Your task to perform on an android device: move a message to another label in the gmail app Image 0: 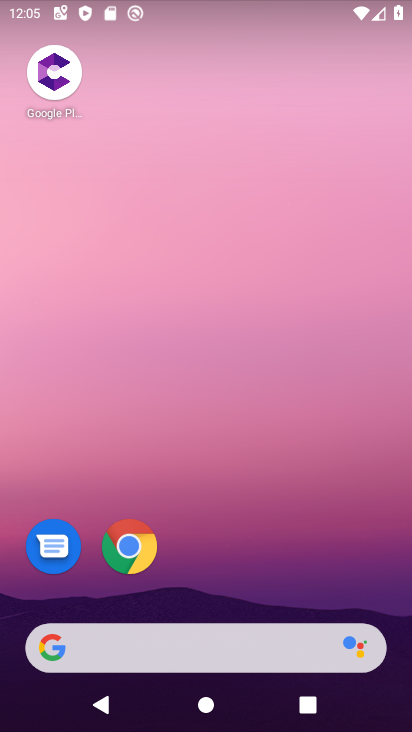
Step 0: drag from (264, 476) to (194, 8)
Your task to perform on an android device: move a message to another label in the gmail app Image 1: 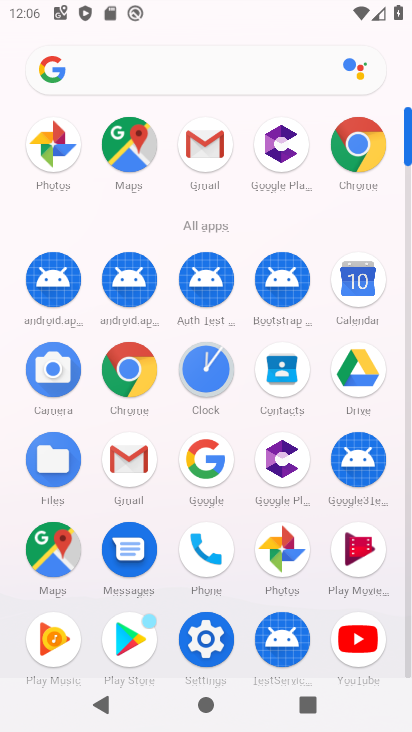
Step 1: click (118, 447)
Your task to perform on an android device: move a message to another label in the gmail app Image 2: 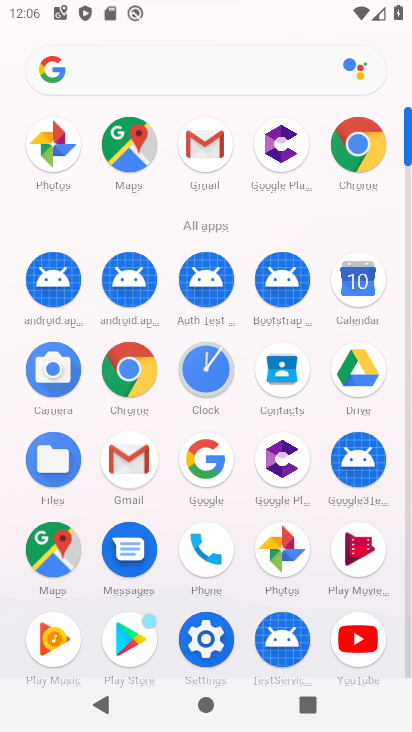
Step 2: click (126, 447)
Your task to perform on an android device: move a message to another label in the gmail app Image 3: 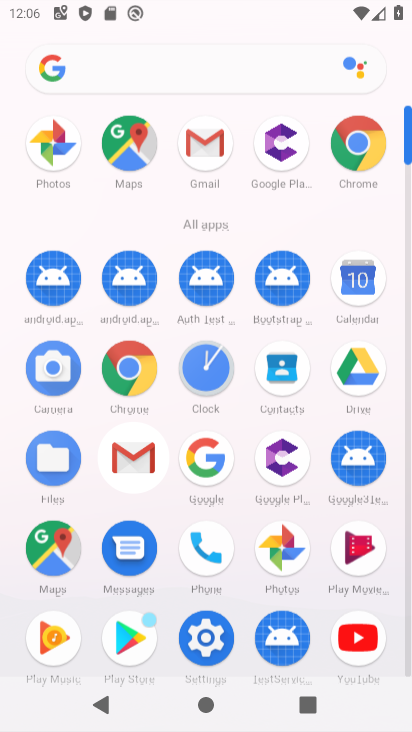
Step 3: click (134, 444)
Your task to perform on an android device: move a message to another label in the gmail app Image 4: 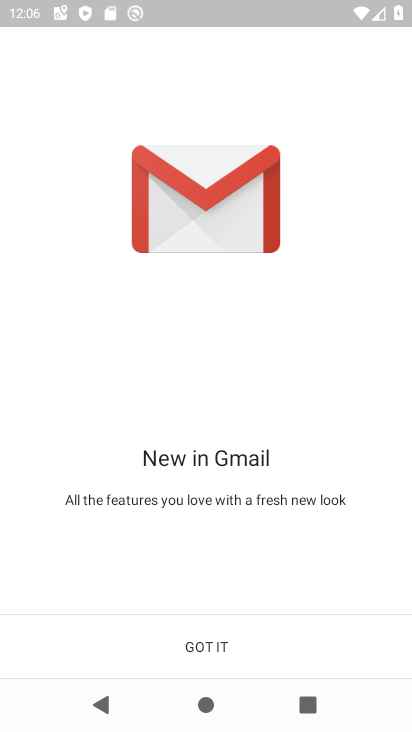
Step 4: click (208, 642)
Your task to perform on an android device: move a message to another label in the gmail app Image 5: 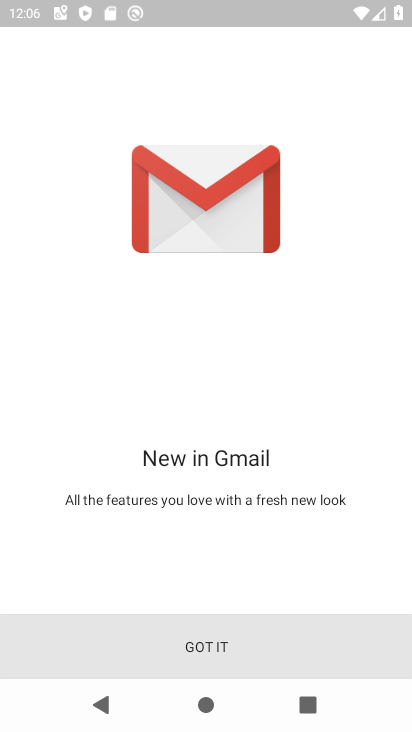
Step 5: click (208, 642)
Your task to perform on an android device: move a message to another label in the gmail app Image 6: 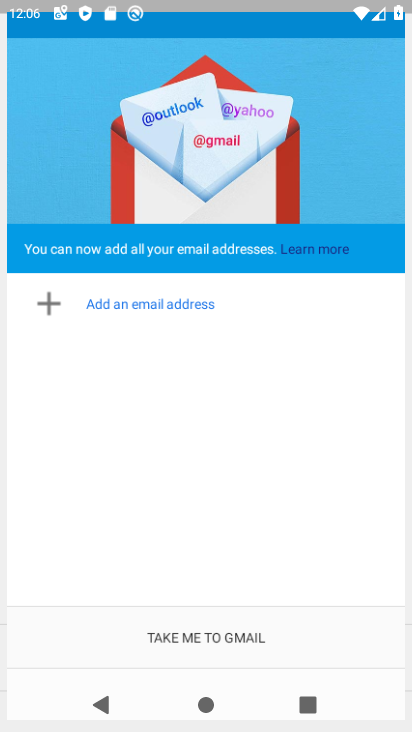
Step 6: click (208, 642)
Your task to perform on an android device: move a message to another label in the gmail app Image 7: 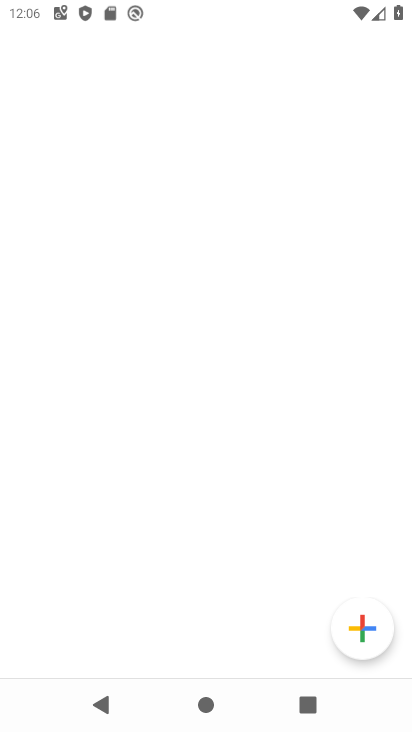
Step 7: click (234, 633)
Your task to perform on an android device: move a message to another label in the gmail app Image 8: 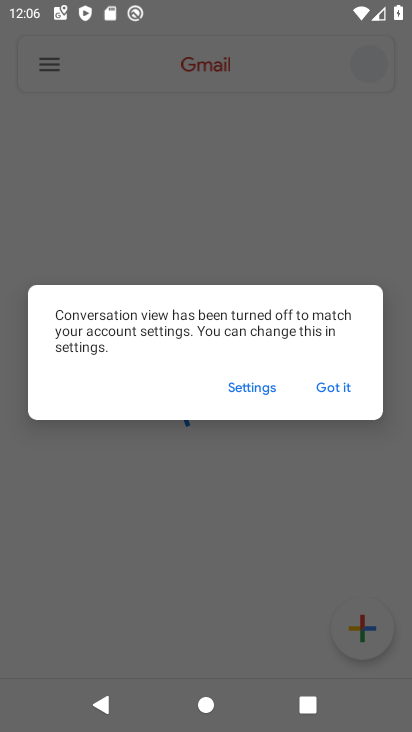
Step 8: click (345, 377)
Your task to perform on an android device: move a message to another label in the gmail app Image 9: 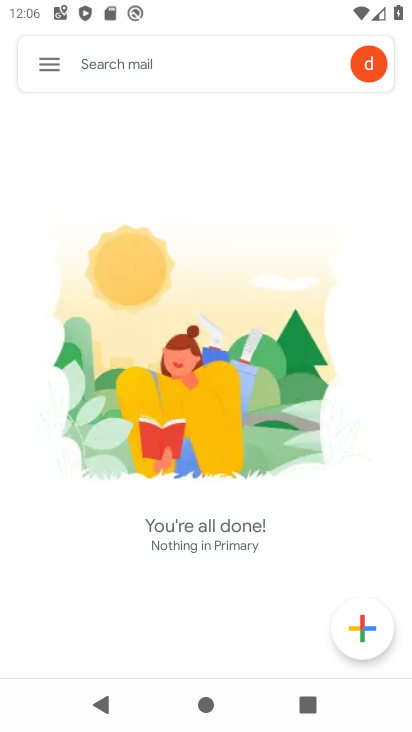
Step 9: drag from (51, 61) to (50, 370)
Your task to perform on an android device: move a message to another label in the gmail app Image 10: 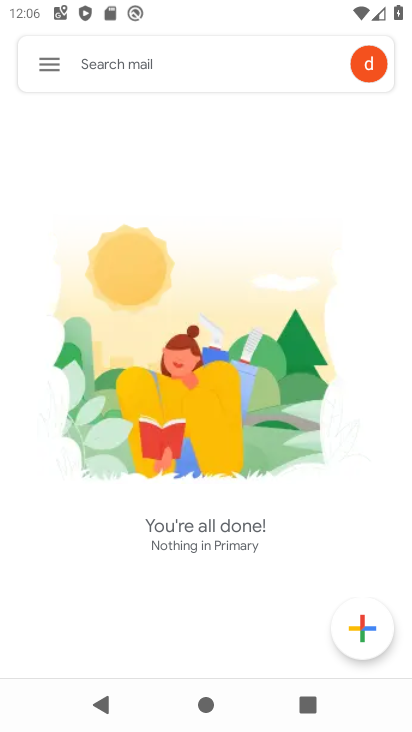
Step 10: click (42, 56)
Your task to perform on an android device: move a message to another label in the gmail app Image 11: 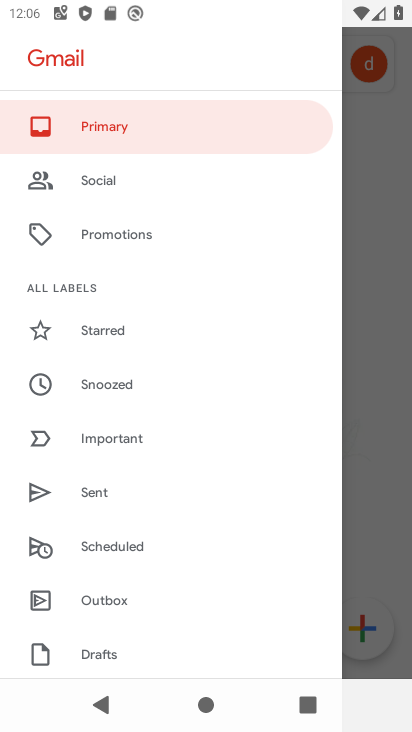
Step 11: drag from (168, 567) to (136, 137)
Your task to perform on an android device: move a message to another label in the gmail app Image 12: 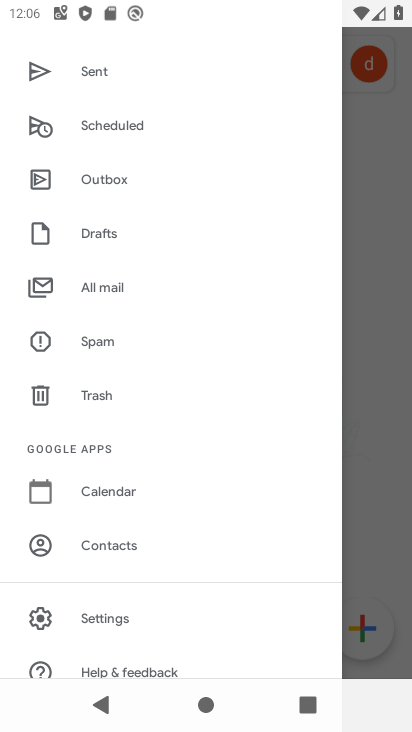
Step 12: click (98, 284)
Your task to perform on an android device: move a message to another label in the gmail app Image 13: 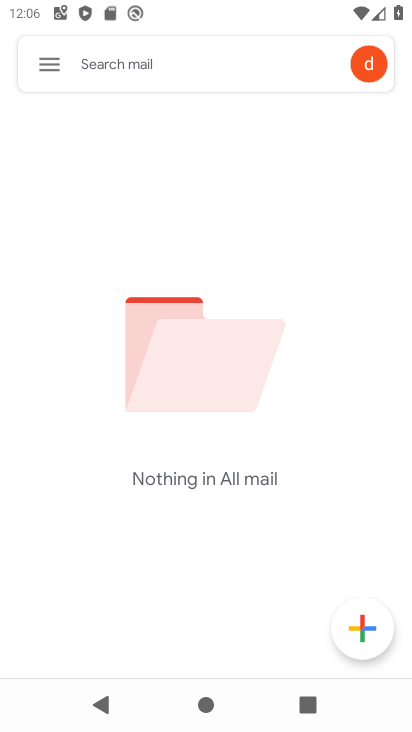
Step 13: task complete